Your task to perform on an android device: Open my contact list Image 0: 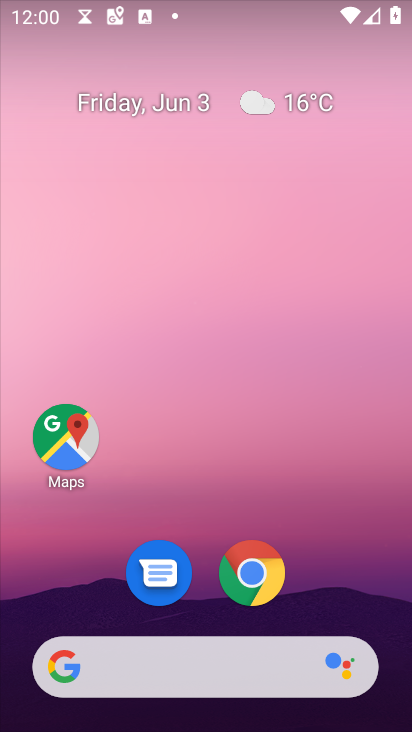
Step 0: drag from (351, 572) to (227, 69)
Your task to perform on an android device: Open my contact list Image 1: 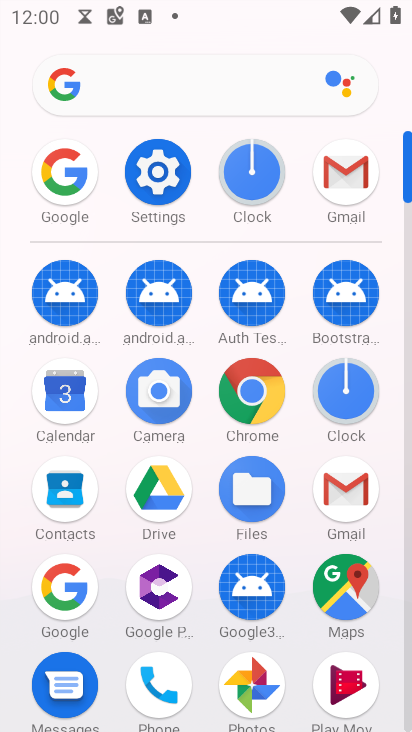
Step 1: click (173, 687)
Your task to perform on an android device: Open my contact list Image 2: 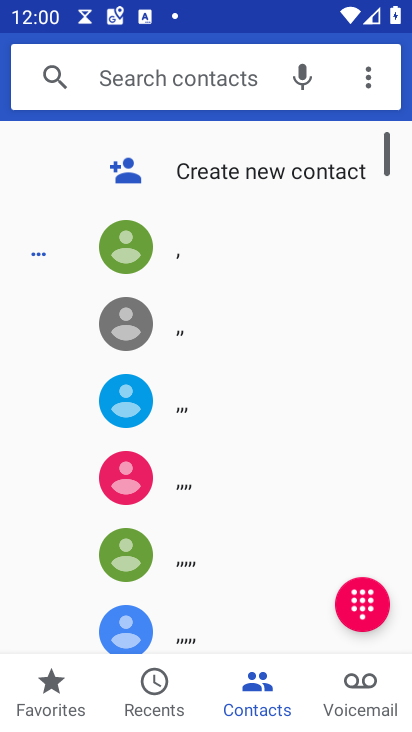
Step 2: task complete